Your task to perform on an android device: change alarm snooze length Image 0: 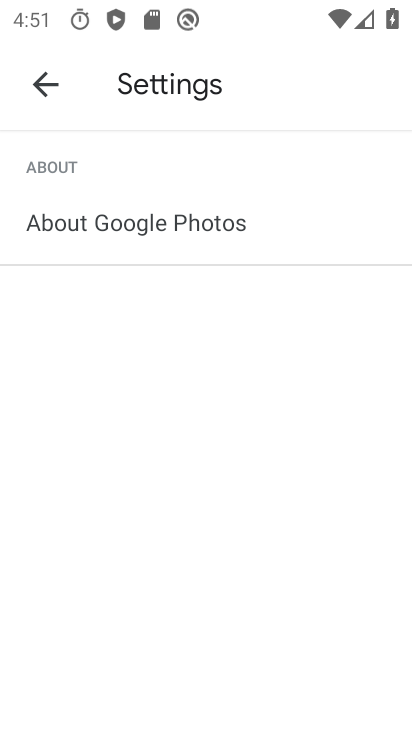
Step 0: press home button
Your task to perform on an android device: change alarm snooze length Image 1: 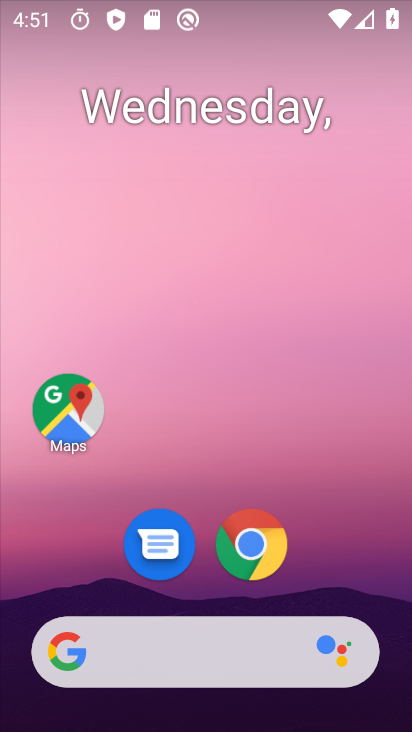
Step 1: drag from (217, 589) to (205, 156)
Your task to perform on an android device: change alarm snooze length Image 2: 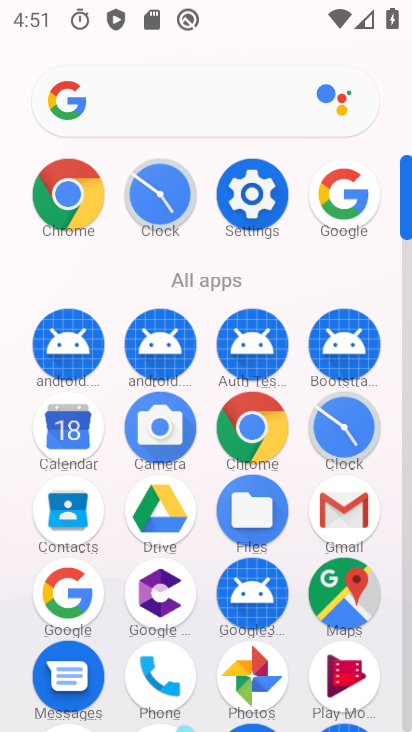
Step 2: click (349, 436)
Your task to perform on an android device: change alarm snooze length Image 3: 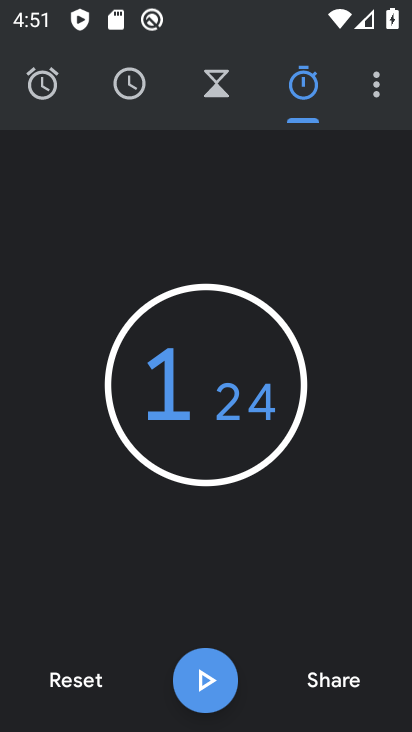
Step 3: click (377, 105)
Your task to perform on an android device: change alarm snooze length Image 4: 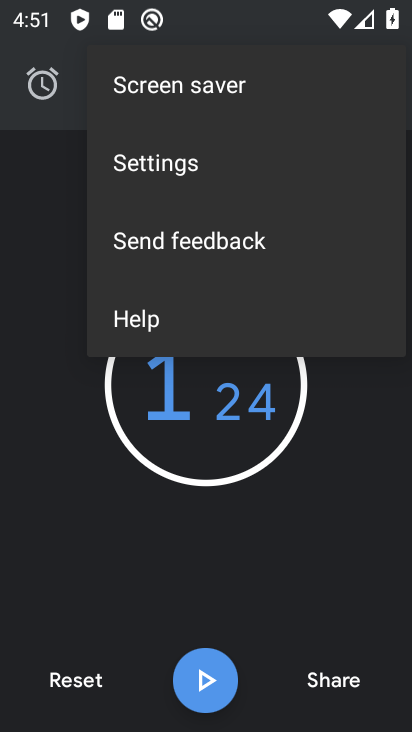
Step 4: click (206, 185)
Your task to perform on an android device: change alarm snooze length Image 5: 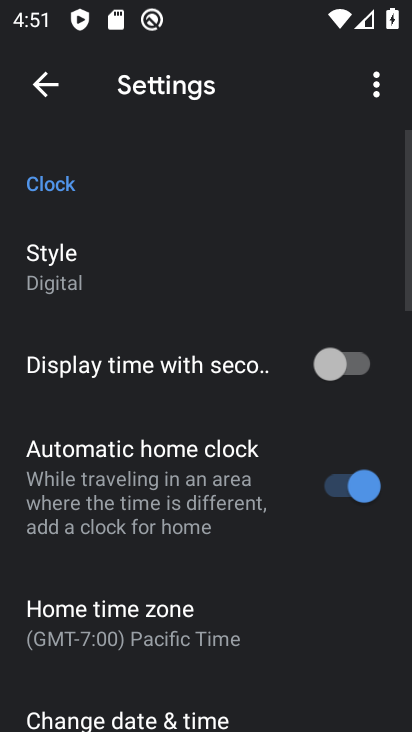
Step 5: drag from (234, 523) to (203, 228)
Your task to perform on an android device: change alarm snooze length Image 6: 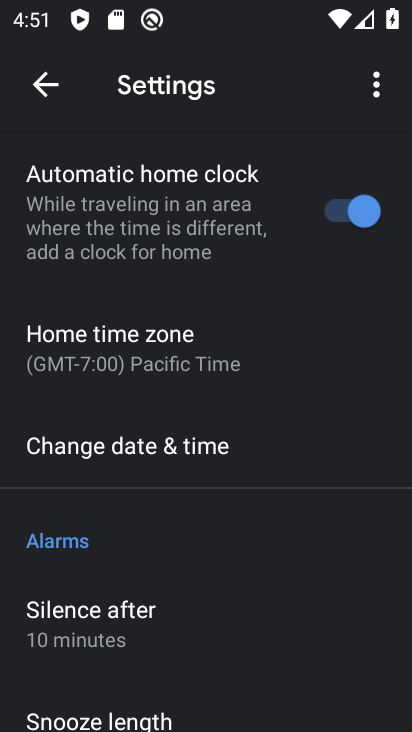
Step 6: drag from (159, 617) to (148, 271)
Your task to perform on an android device: change alarm snooze length Image 7: 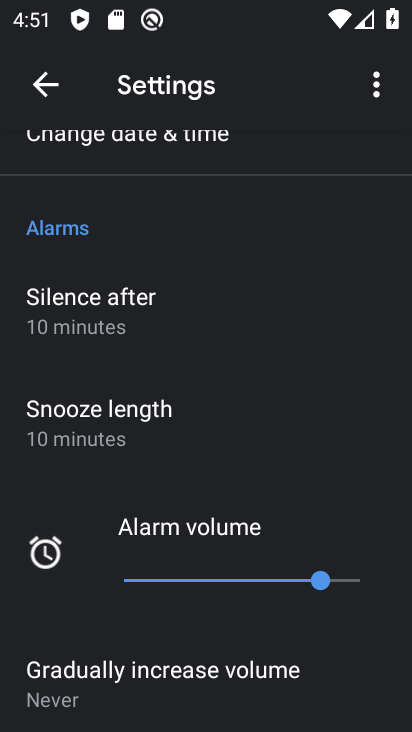
Step 7: click (132, 390)
Your task to perform on an android device: change alarm snooze length Image 8: 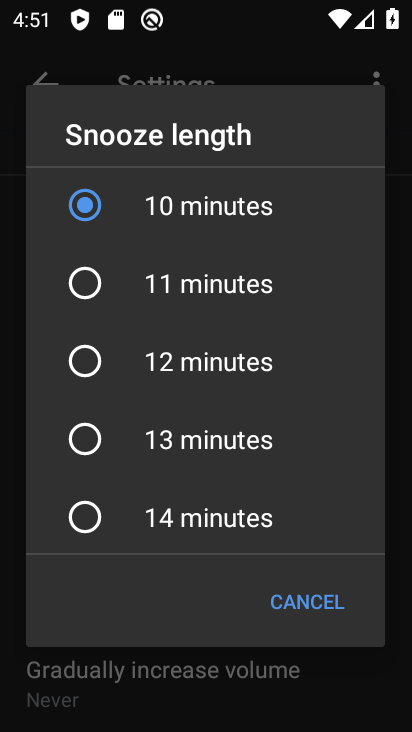
Step 8: click (168, 272)
Your task to perform on an android device: change alarm snooze length Image 9: 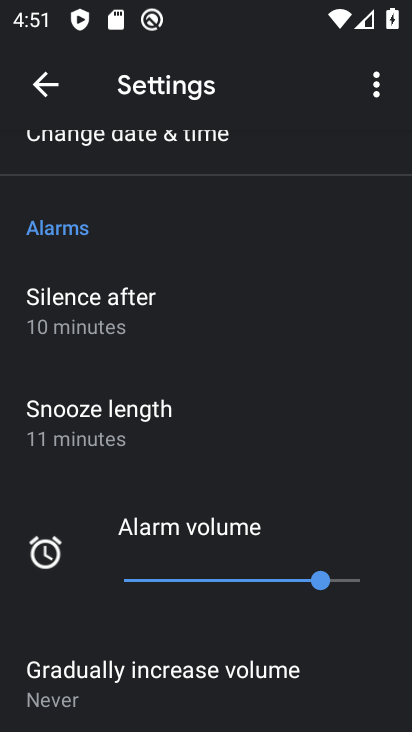
Step 9: task complete